Your task to perform on an android device: Open Youtube and go to "Your channel" Image 0: 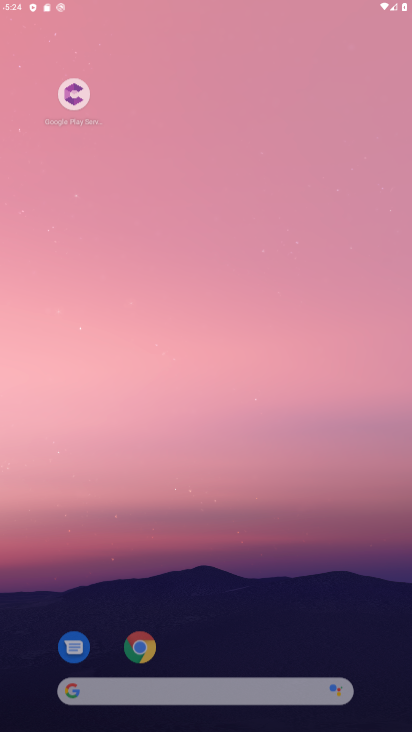
Step 0: click (308, 26)
Your task to perform on an android device: Open Youtube and go to "Your channel" Image 1: 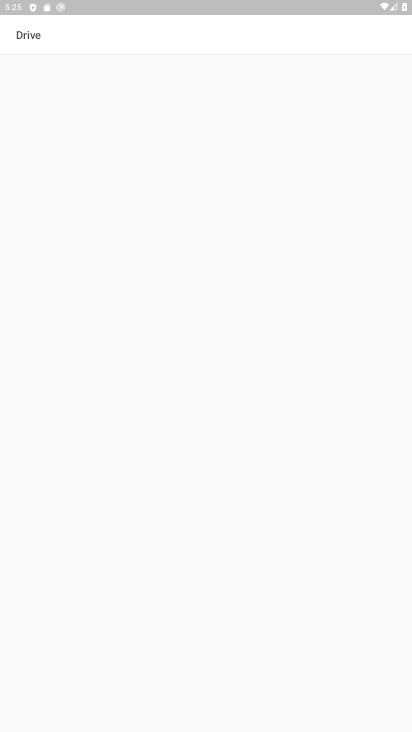
Step 1: press home button
Your task to perform on an android device: Open Youtube and go to "Your channel" Image 2: 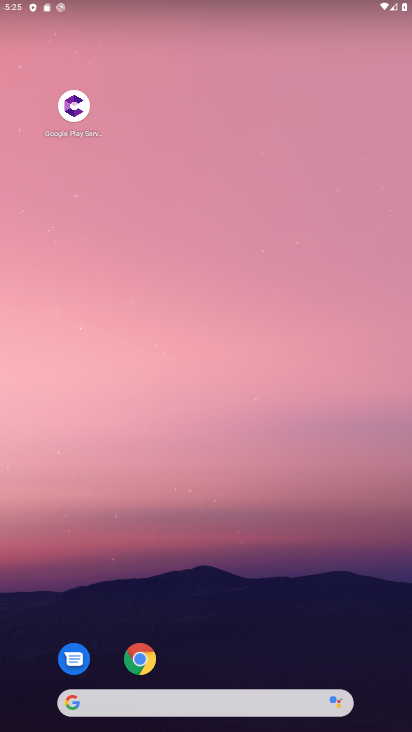
Step 2: drag from (265, 620) to (339, 13)
Your task to perform on an android device: Open Youtube and go to "Your channel" Image 3: 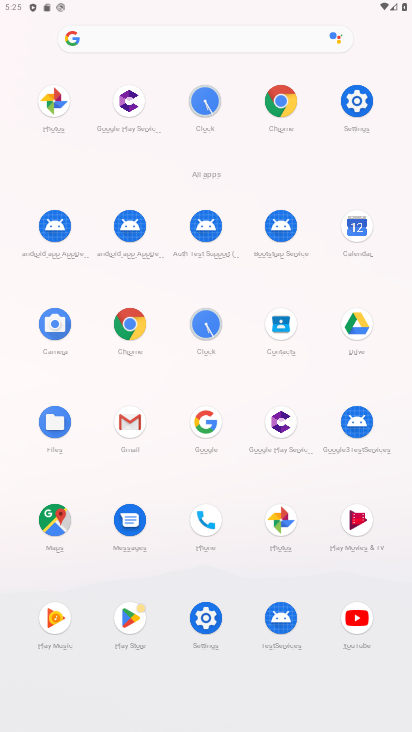
Step 3: click (354, 648)
Your task to perform on an android device: Open Youtube and go to "Your channel" Image 4: 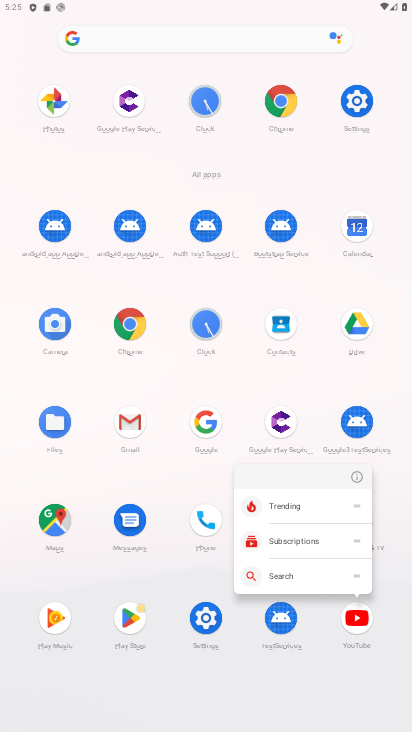
Step 4: click (354, 640)
Your task to perform on an android device: Open Youtube and go to "Your channel" Image 5: 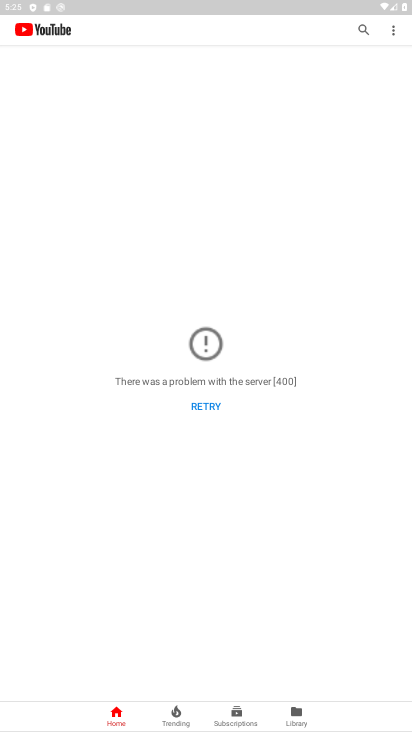
Step 5: click (186, 401)
Your task to perform on an android device: Open Youtube and go to "Your channel" Image 6: 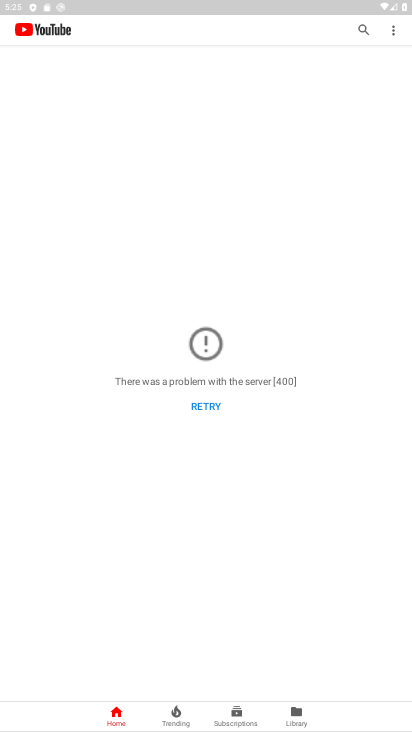
Step 6: click (211, 410)
Your task to perform on an android device: Open Youtube and go to "Your channel" Image 7: 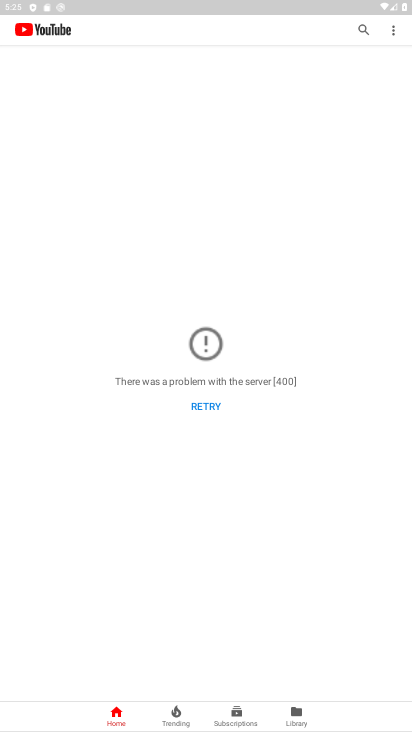
Step 7: click (211, 410)
Your task to perform on an android device: Open Youtube and go to "Your channel" Image 8: 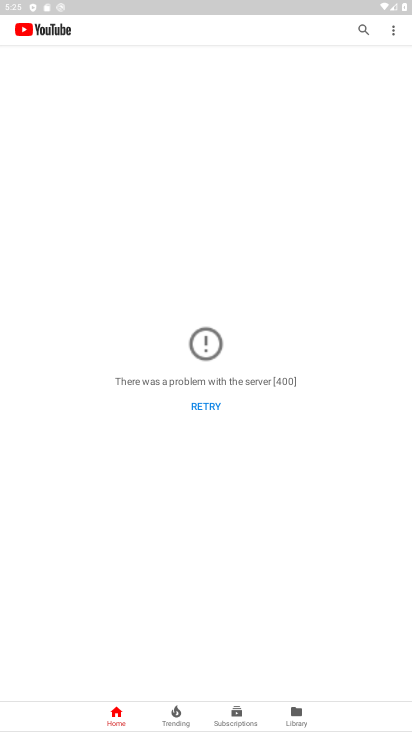
Step 8: click (211, 410)
Your task to perform on an android device: Open Youtube and go to "Your channel" Image 9: 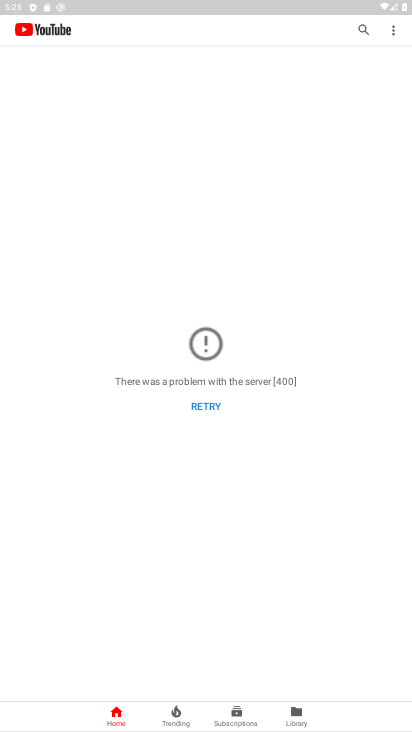
Step 9: click (211, 410)
Your task to perform on an android device: Open Youtube and go to "Your channel" Image 10: 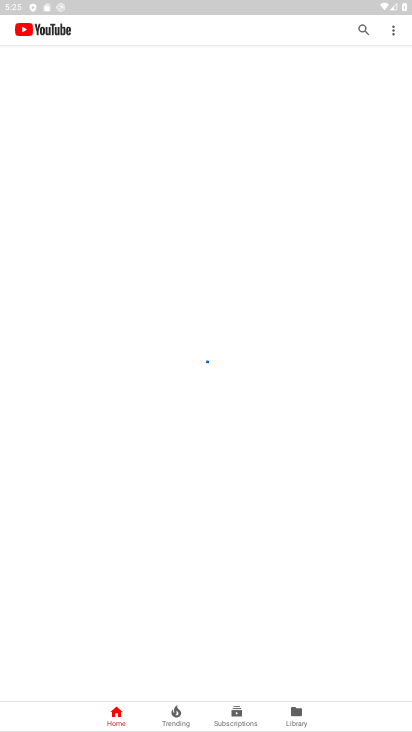
Step 10: click (211, 410)
Your task to perform on an android device: Open Youtube and go to "Your channel" Image 11: 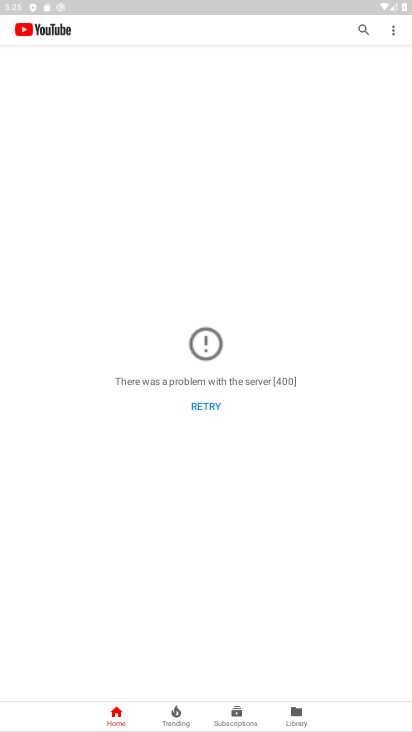
Step 11: click (211, 410)
Your task to perform on an android device: Open Youtube and go to "Your channel" Image 12: 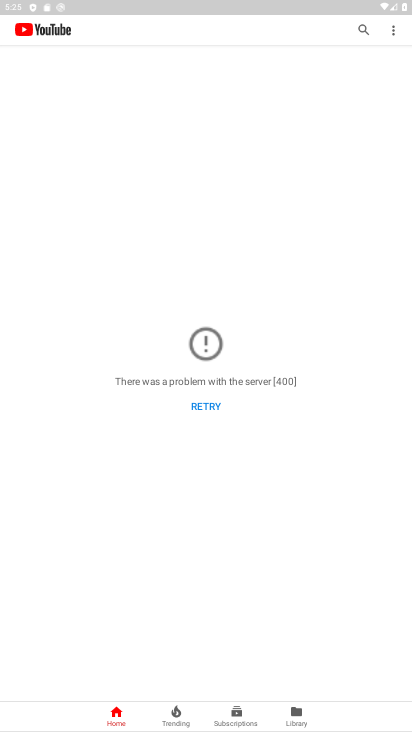
Step 12: click (211, 410)
Your task to perform on an android device: Open Youtube and go to "Your channel" Image 13: 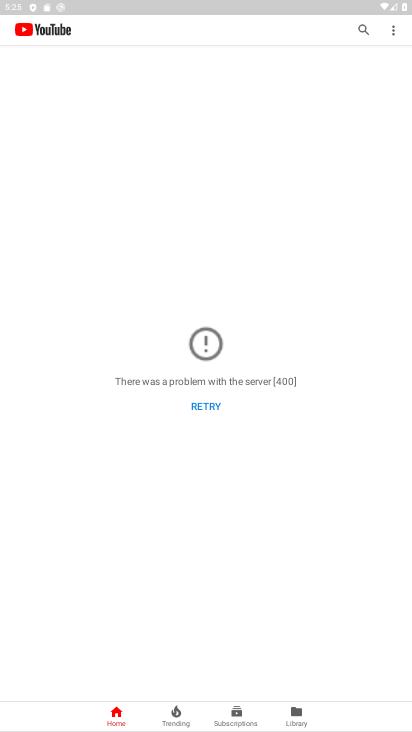
Step 13: click (201, 417)
Your task to perform on an android device: Open Youtube and go to "Your channel" Image 14: 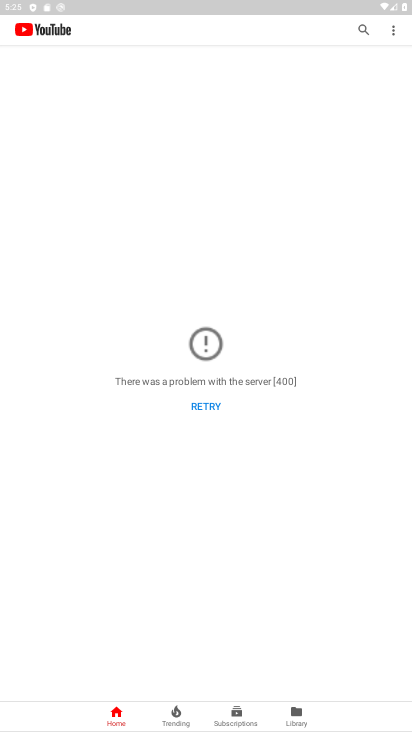
Step 14: task complete